Your task to perform on an android device: Open wifi settings Image 0: 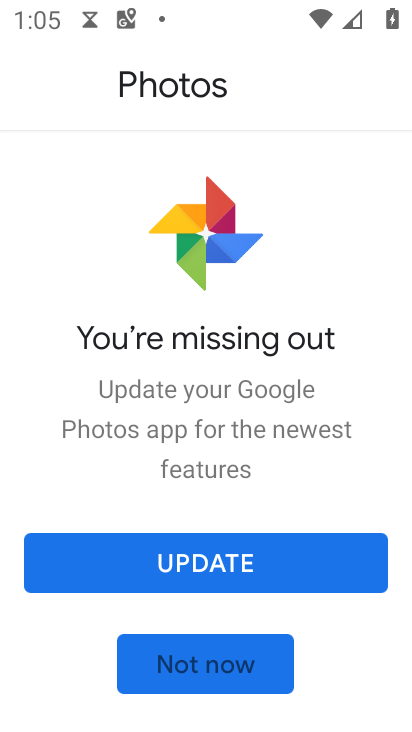
Step 0: press home button
Your task to perform on an android device: Open wifi settings Image 1: 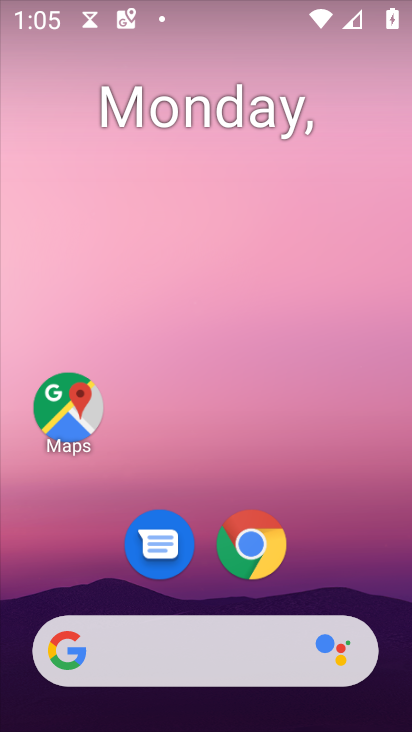
Step 1: drag from (347, 583) to (317, 278)
Your task to perform on an android device: Open wifi settings Image 2: 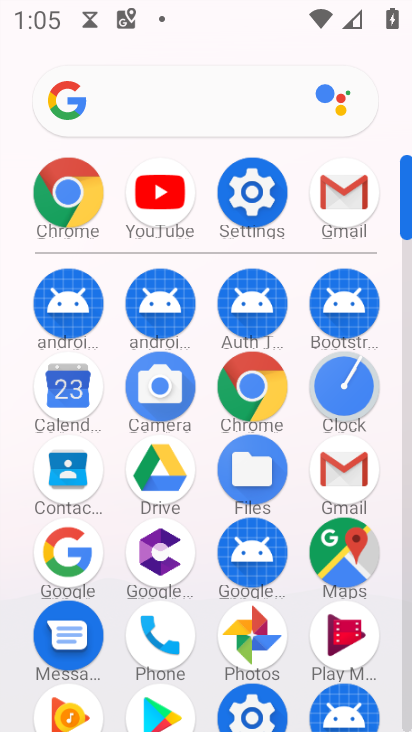
Step 2: click (266, 190)
Your task to perform on an android device: Open wifi settings Image 3: 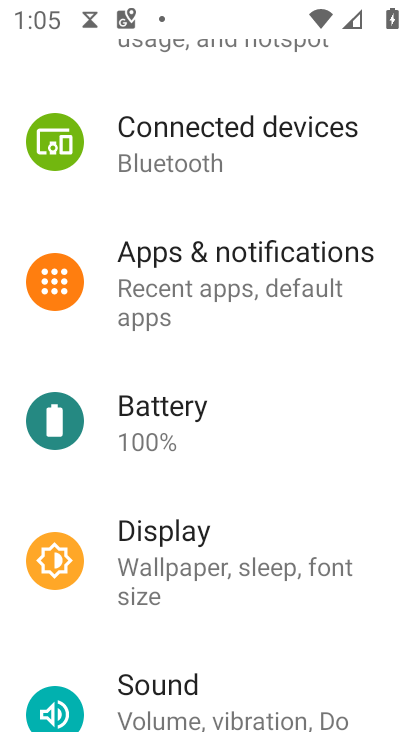
Step 3: drag from (206, 158) to (229, 347)
Your task to perform on an android device: Open wifi settings Image 4: 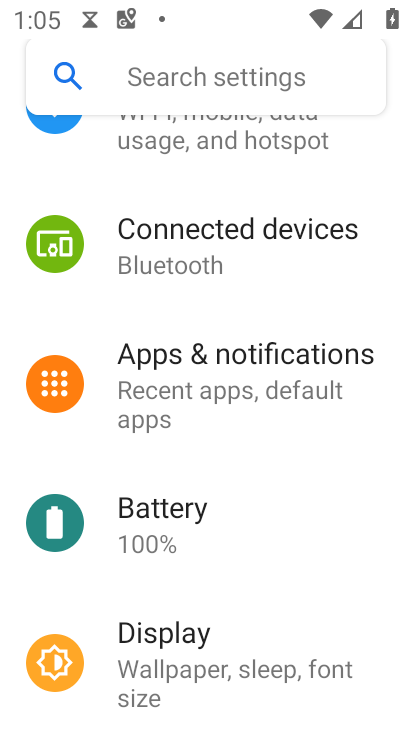
Step 4: drag from (193, 148) to (186, 579)
Your task to perform on an android device: Open wifi settings Image 5: 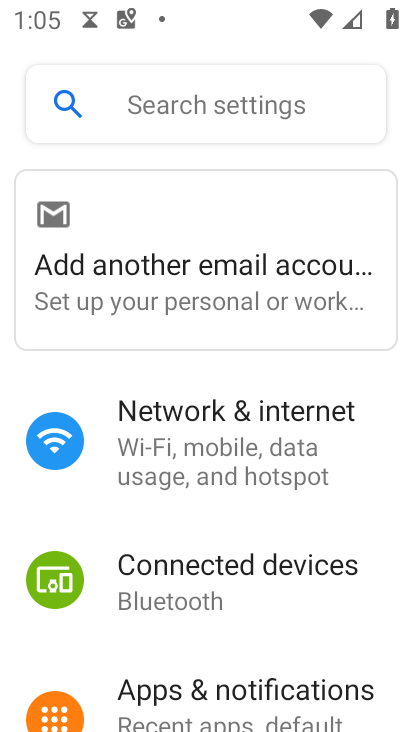
Step 5: click (203, 454)
Your task to perform on an android device: Open wifi settings Image 6: 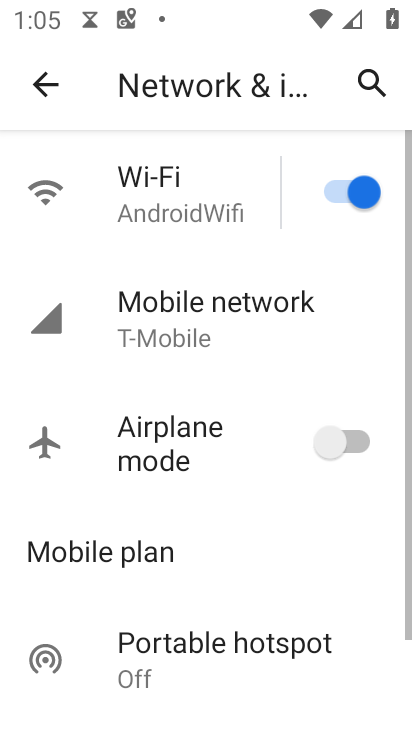
Step 6: click (160, 203)
Your task to perform on an android device: Open wifi settings Image 7: 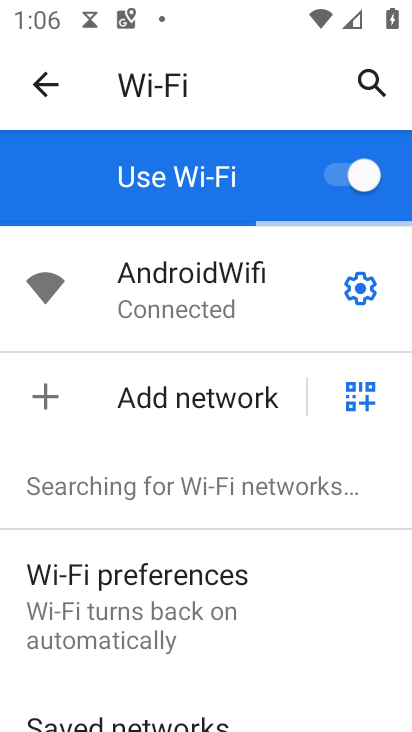
Step 7: task complete